Your task to perform on an android device: open sync settings in chrome Image 0: 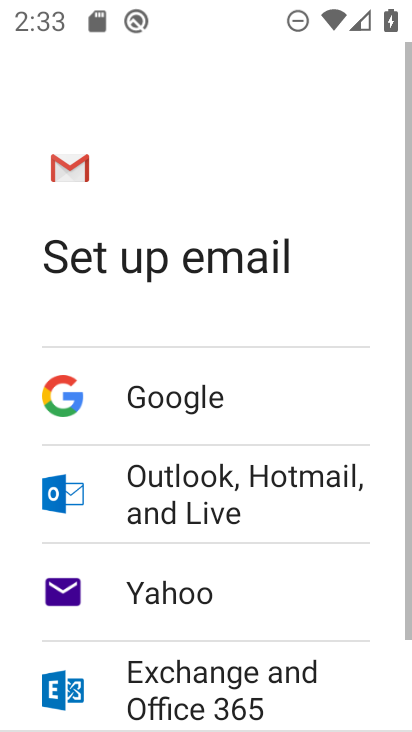
Step 0: press home button
Your task to perform on an android device: open sync settings in chrome Image 1: 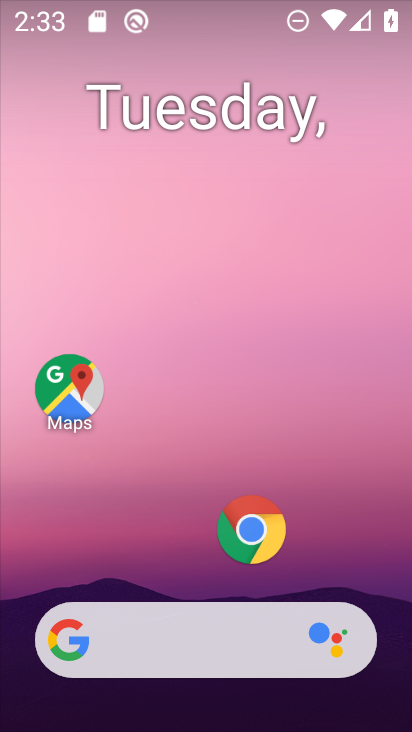
Step 1: drag from (245, 685) to (255, 258)
Your task to perform on an android device: open sync settings in chrome Image 2: 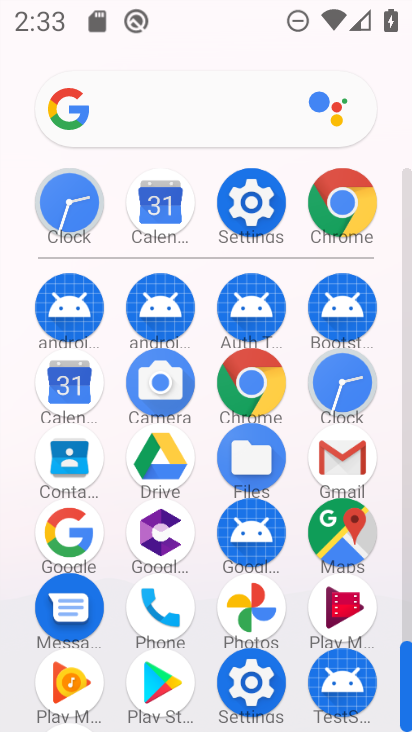
Step 2: click (352, 203)
Your task to perform on an android device: open sync settings in chrome Image 3: 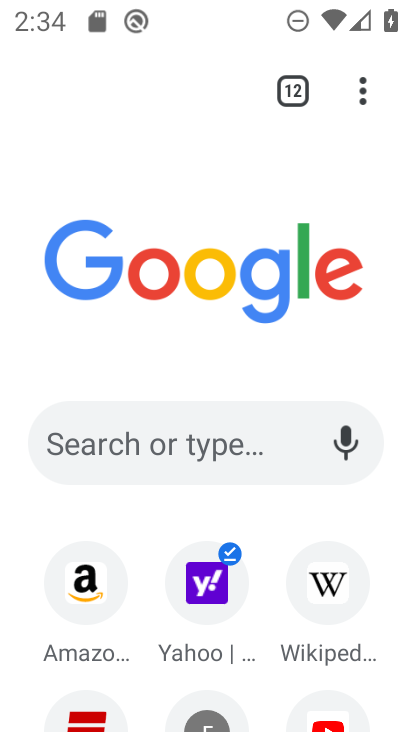
Step 3: click (354, 95)
Your task to perform on an android device: open sync settings in chrome Image 4: 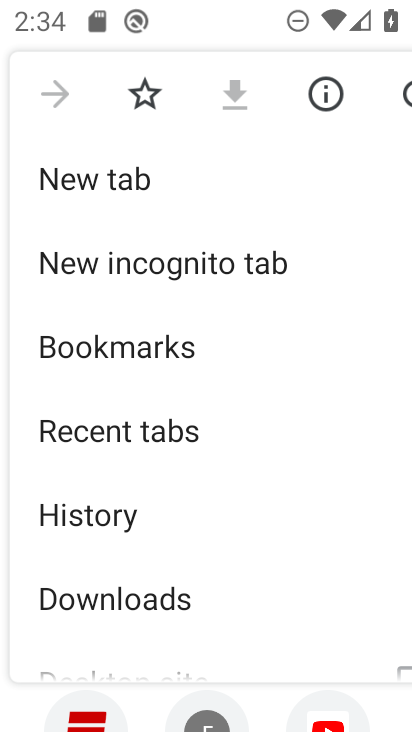
Step 4: drag from (213, 537) to (284, 101)
Your task to perform on an android device: open sync settings in chrome Image 5: 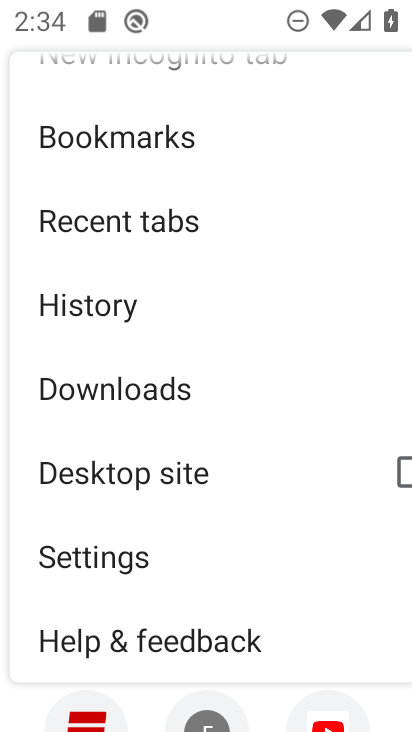
Step 5: click (91, 532)
Your task to perform on an android device: open sync settings in chrome Image 6: 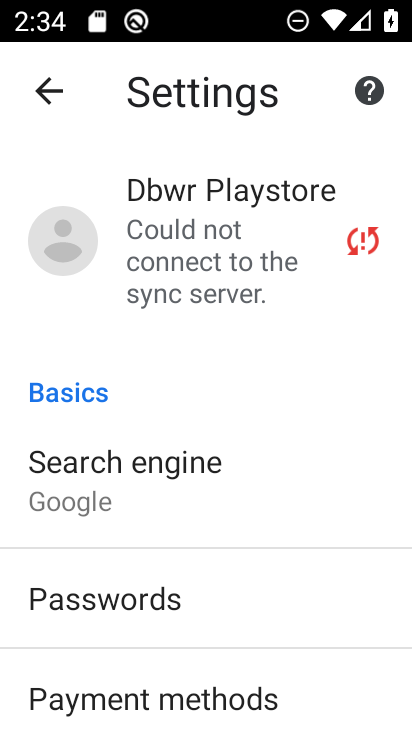
Step 6: drag from (159, 651) to (280, 87)
Your task to perform on an android device: open sync settings in chrome Image 7: 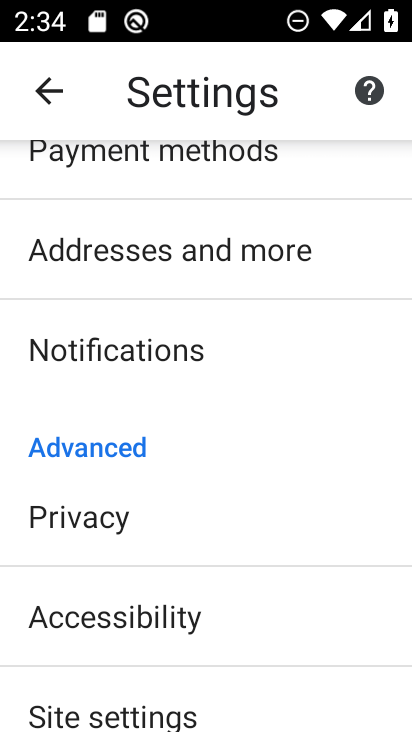
Step 7: click (116, 697)
Your task to perform on an android device: open sync settings in chrome Image 8: 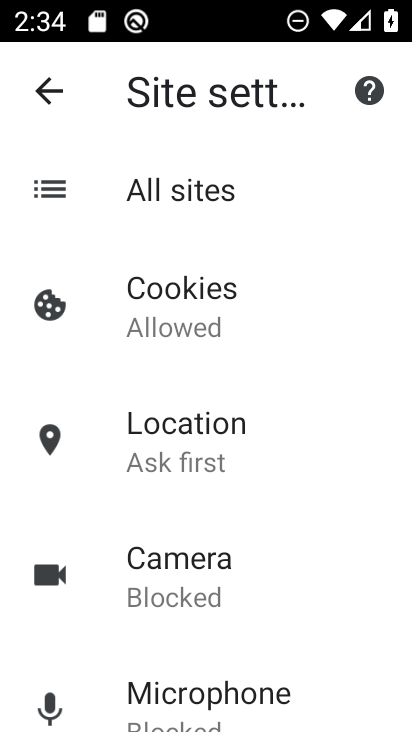
Step 8: drag from (230, 549) to (186, 172)
Your task to perform on an android device: open sync settings in chrome Image 9: 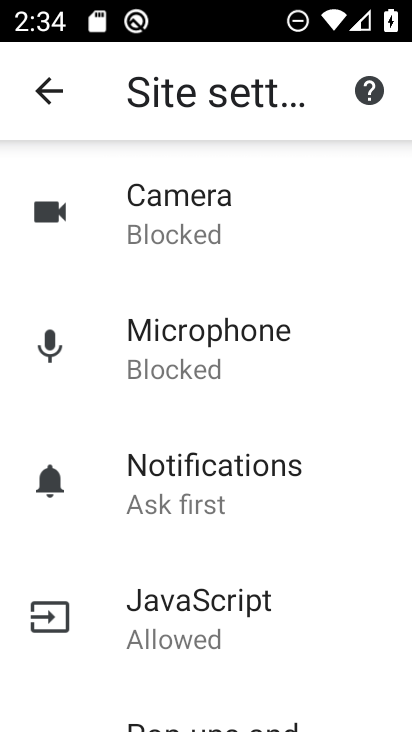
Step 9: drag from (215, 548) to (197, 358)
Your task to perform on an android device: open sync settings in chrome Image 10: 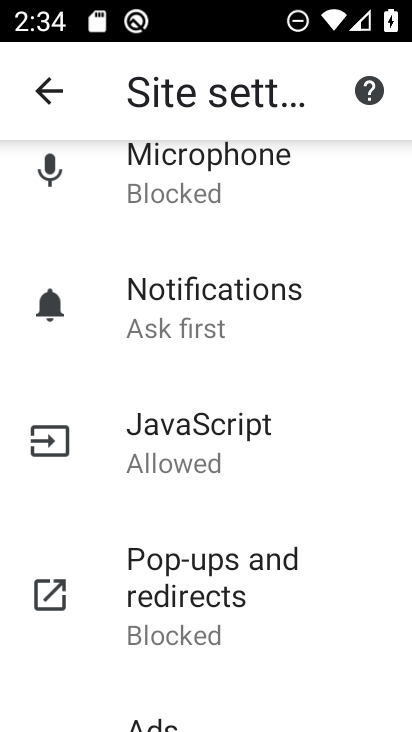
Step 10: drag from (201, 595) to (229, 481)
Your task to perform on an android device: open sync settings in chrome Image 11: 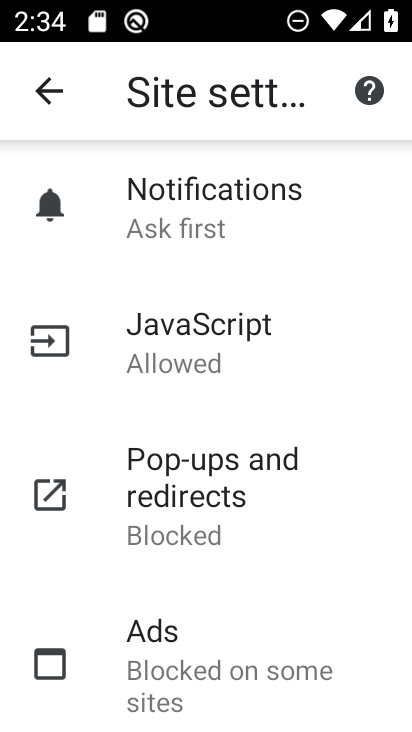
Step 11: drag from (182, 644) to (236, 379)
Your task to perform on an android device: open sync settings in chrome Image 12: 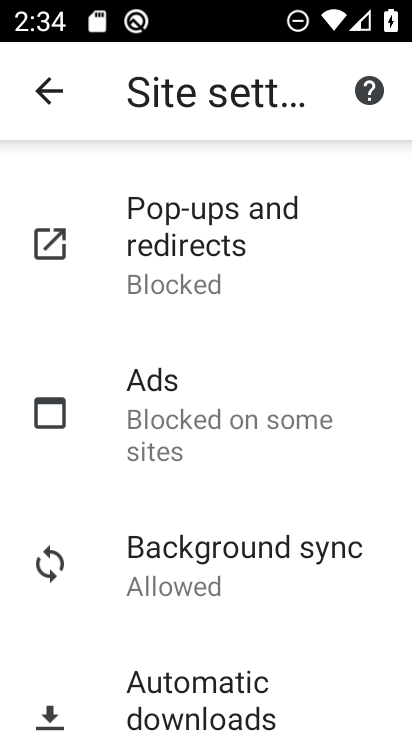
Step 12: click (213, 531)
Your task to perform on an android device: open sync settings in chrome Image 13: 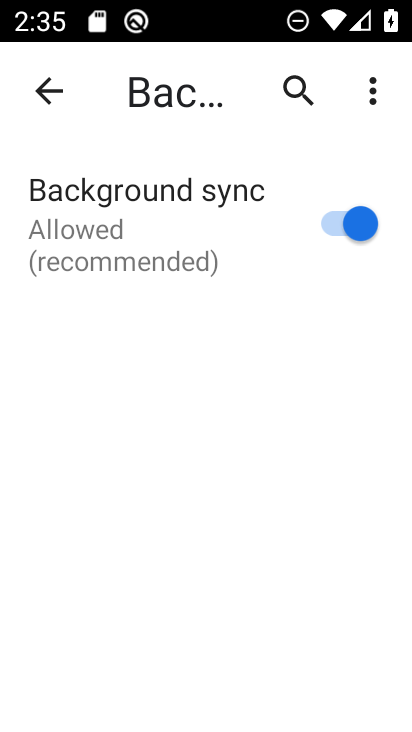
Step 13: task complete